Your task to perform on an android device: Open Wikipedia Image 0: 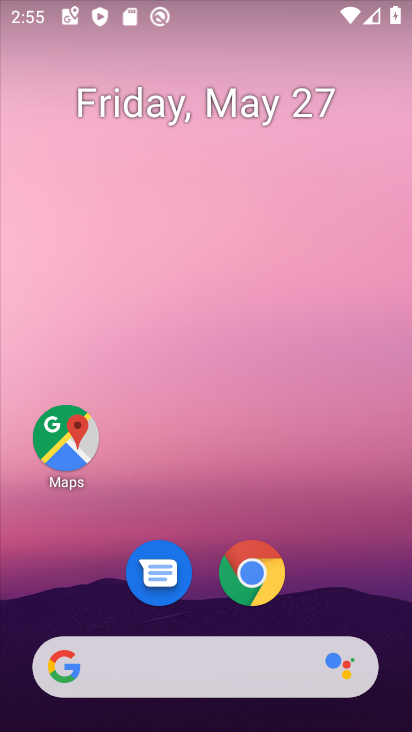
Step 0: drag from (249, 489) to (210, 59)
Your task to perform on an android device: Open Wikipedia Image 1: 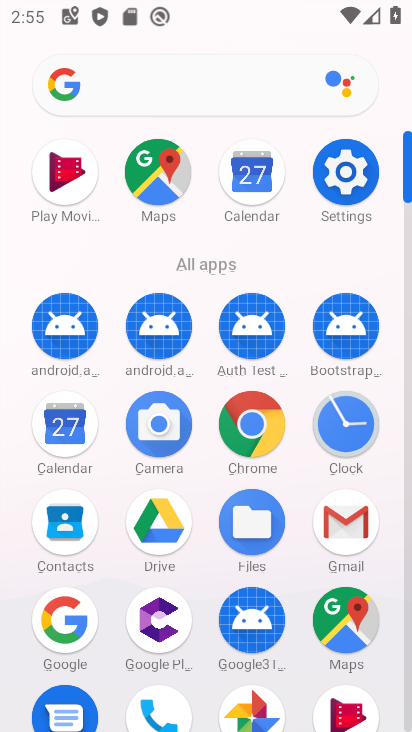
Step 1: click (271, 420)
Your task to perform on an android device: Open Wikipedia Image 2: 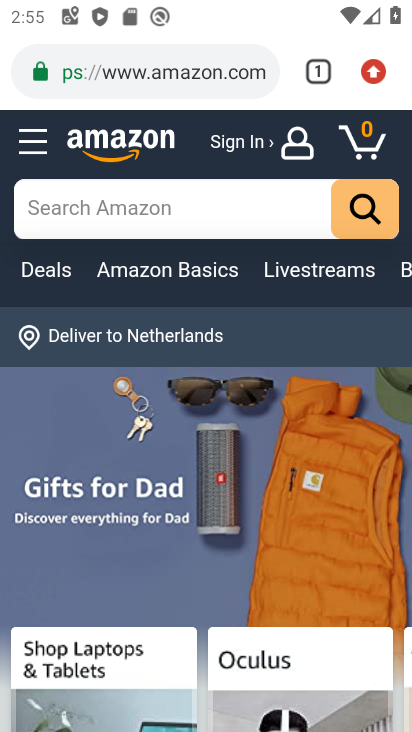
Step 2: click (377, 72)
Your task to perform on an android device: Open Wikipedia Image 3: 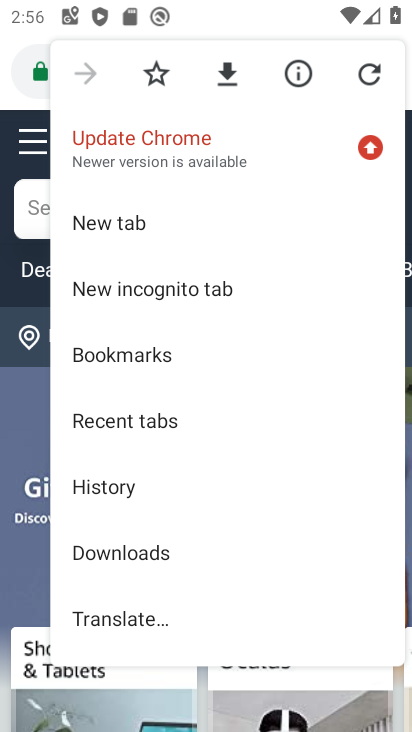
Step 3: click (230, 218)
Your task to perform on an android device: Open Wikipedia Image 4: 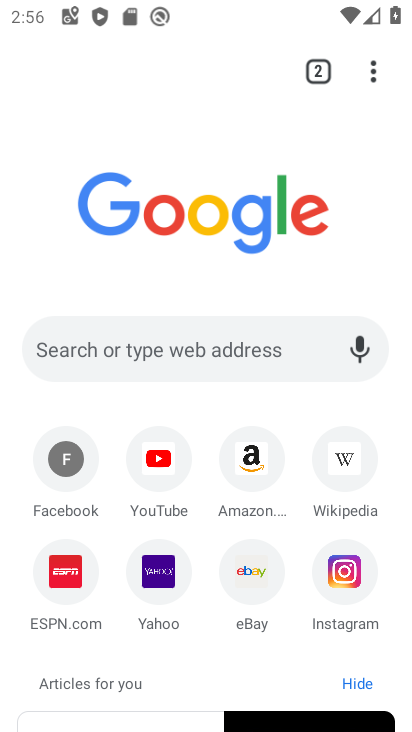
Step 4: click (350, 469)
Your task to perform on an android device: Open Wikipedia Image 5: 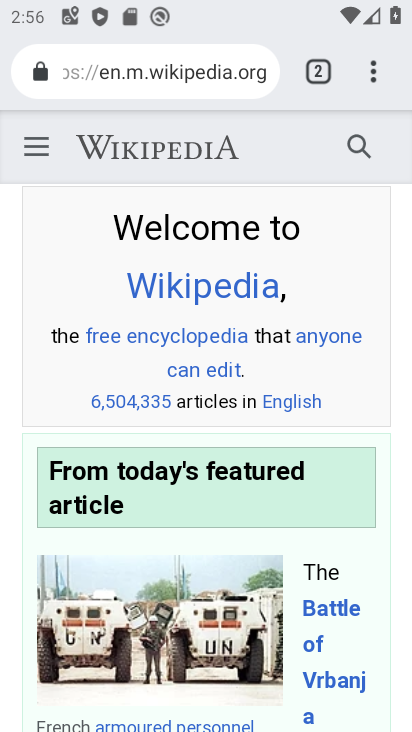
Step 5: task complete